Your task to perform on an android device: manage bookmarks in the chrome app Image 0: 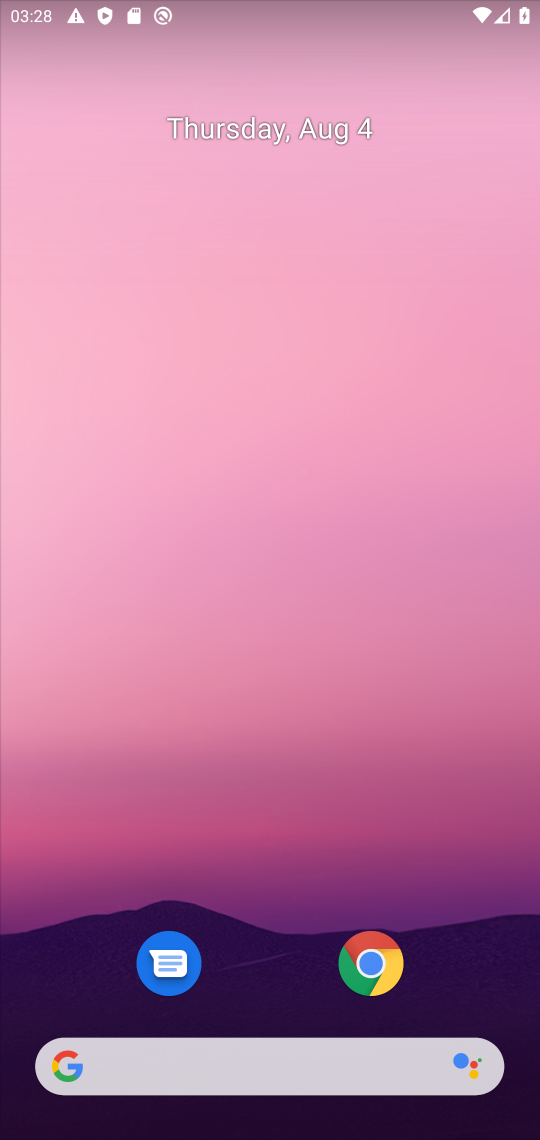
Step 0: click (377, 964)
Your task to perform on an android device: manage bookmarks in the chrome app Image 1: 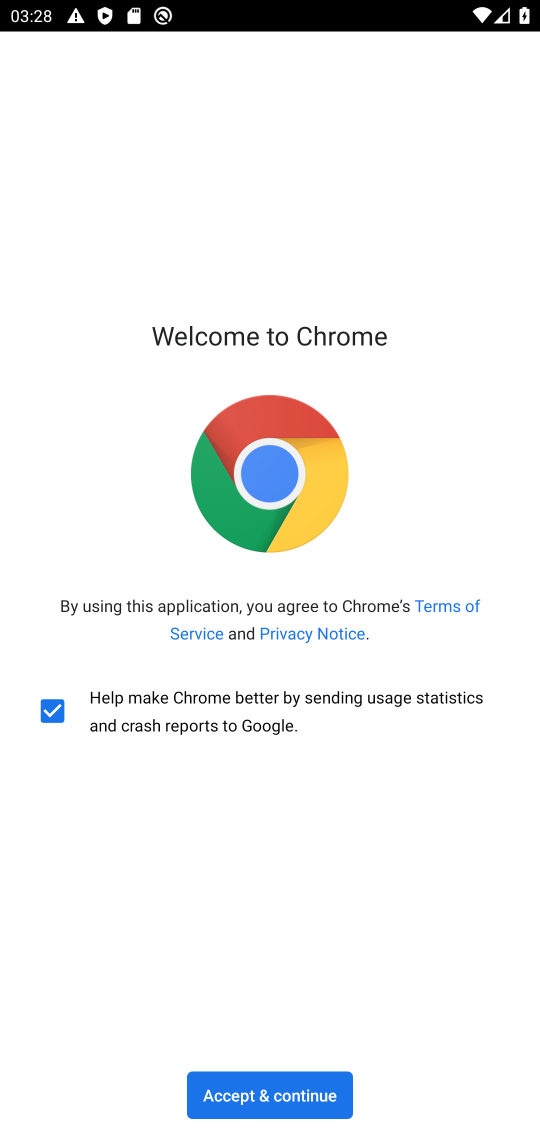
Step 1: click (277, 1098)
Your task to perform on an android device: manage bookmarks in the chrome app Image 2: 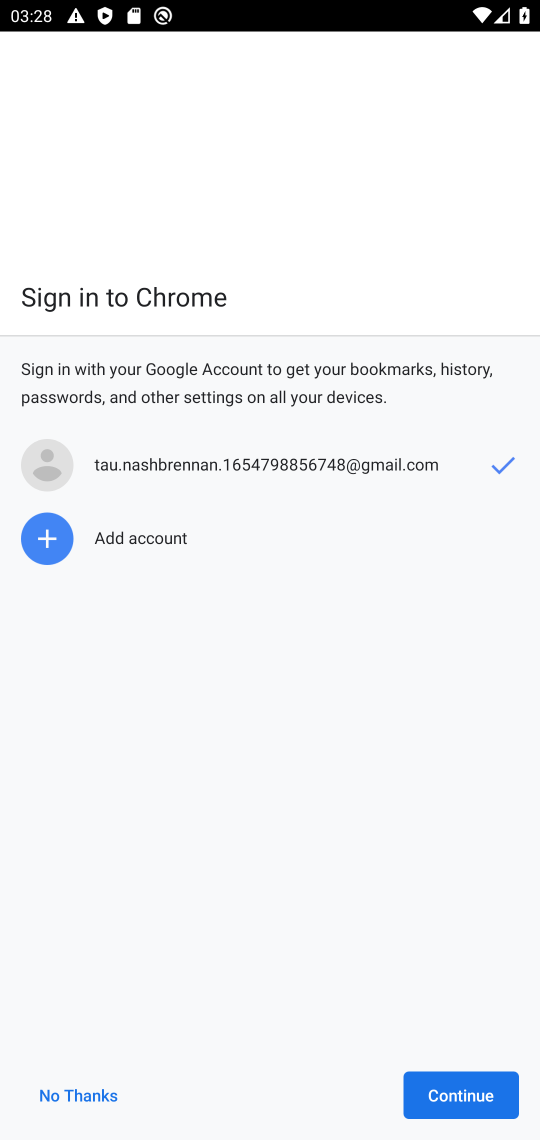
Step 2: click (98, 1100)
Your task to perform on an android device: manage bookmarks in the chrome app Image 3: 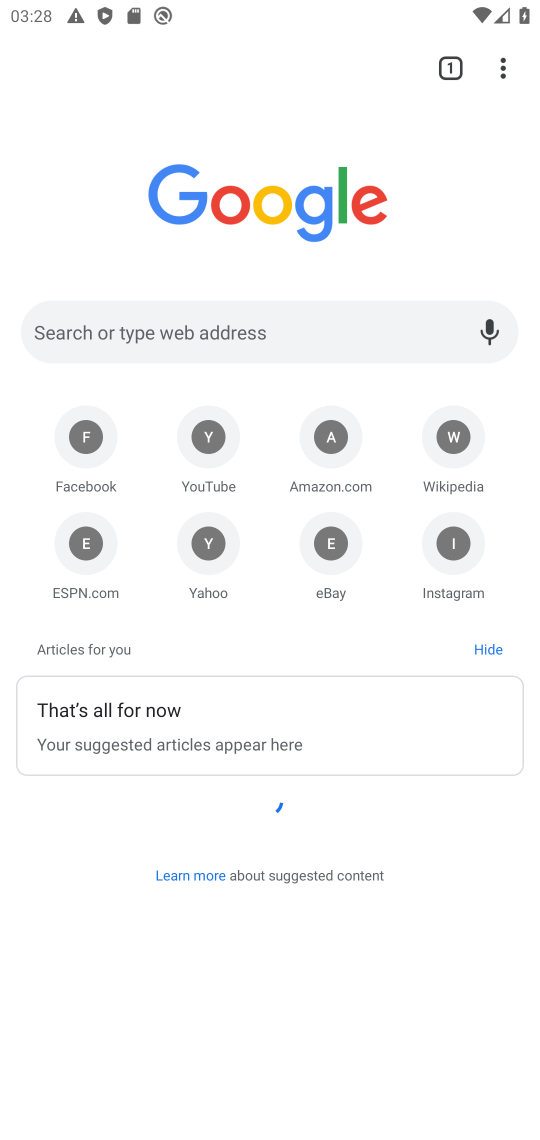
Step 3: drag from (500, 68) to (257, 274)
Your task to perform on an android device: manage bookmarks in the chrome app Image 4: 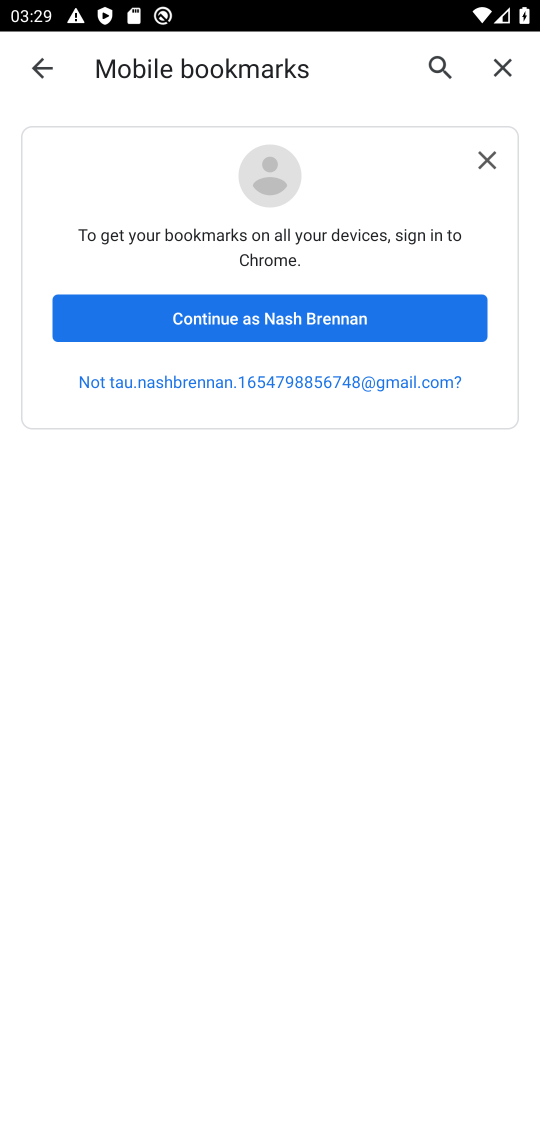
Step 4: click (253, 330)
Your task to perform on an android device: manage bookmarks in the chrome app Image 5: 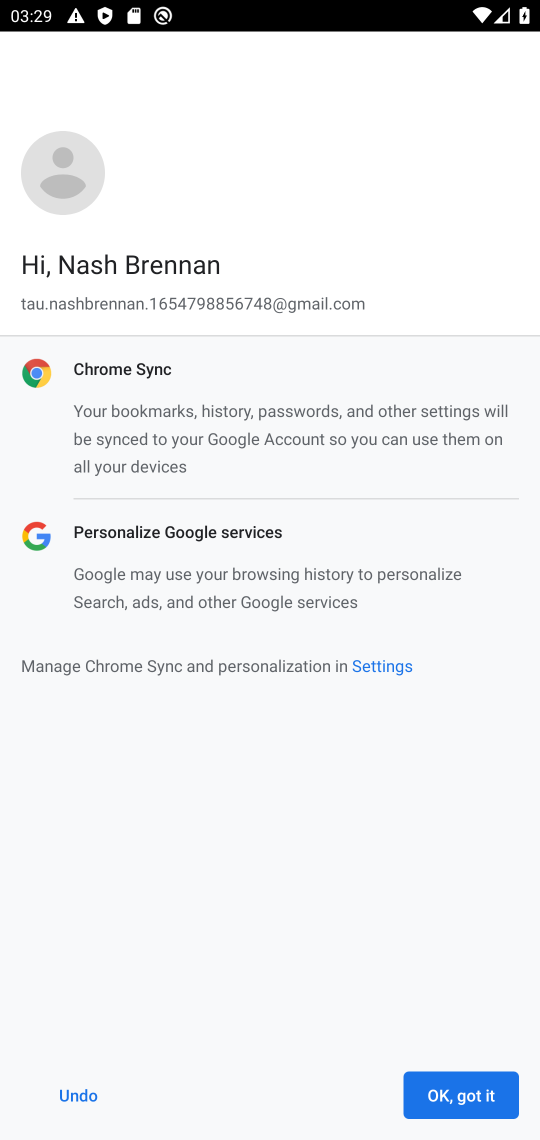
Step 5: click (465, 1113)
Your task to perform on an android device: manage bookmarks in the chrome app Image 6: 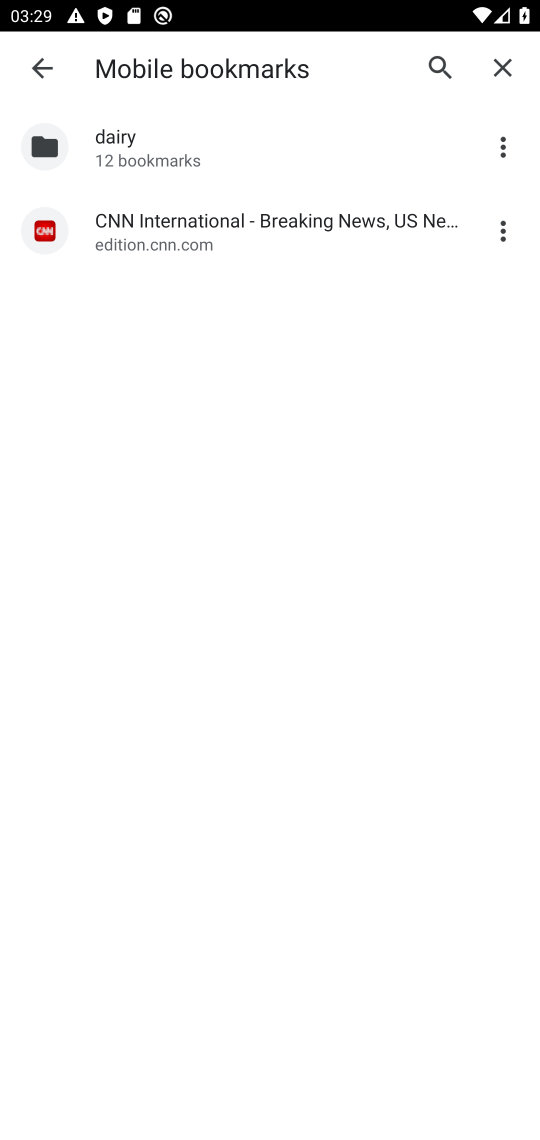
Step 6: click (141, 166)
Your task to perform on an android device: manage bookmarks in the chrome app Image 7: 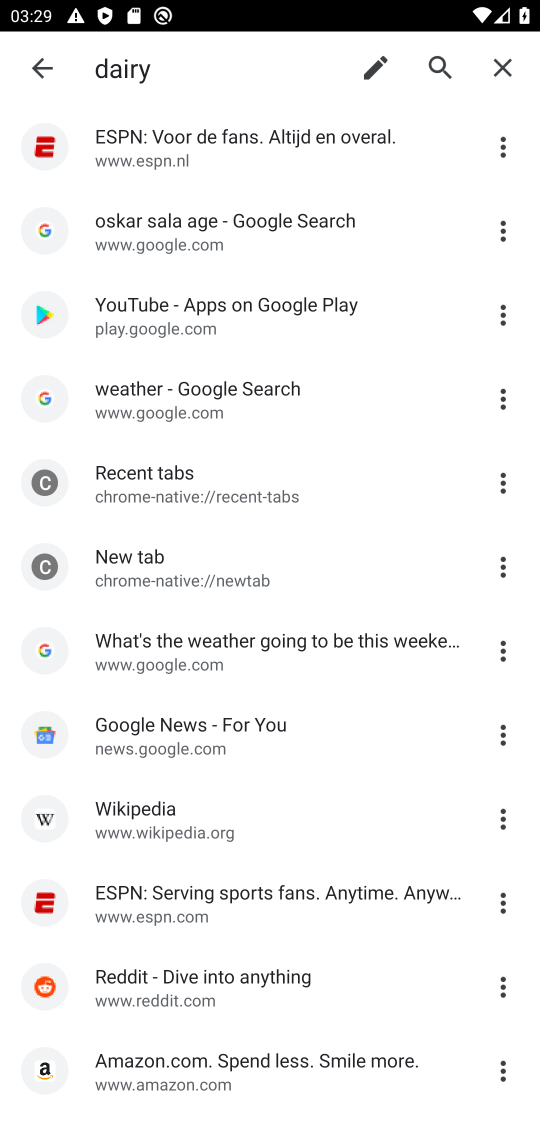
Step 7: click (506, 484)
Your task to perform on an android device: manage bookmarks in the chrome app Image 8: 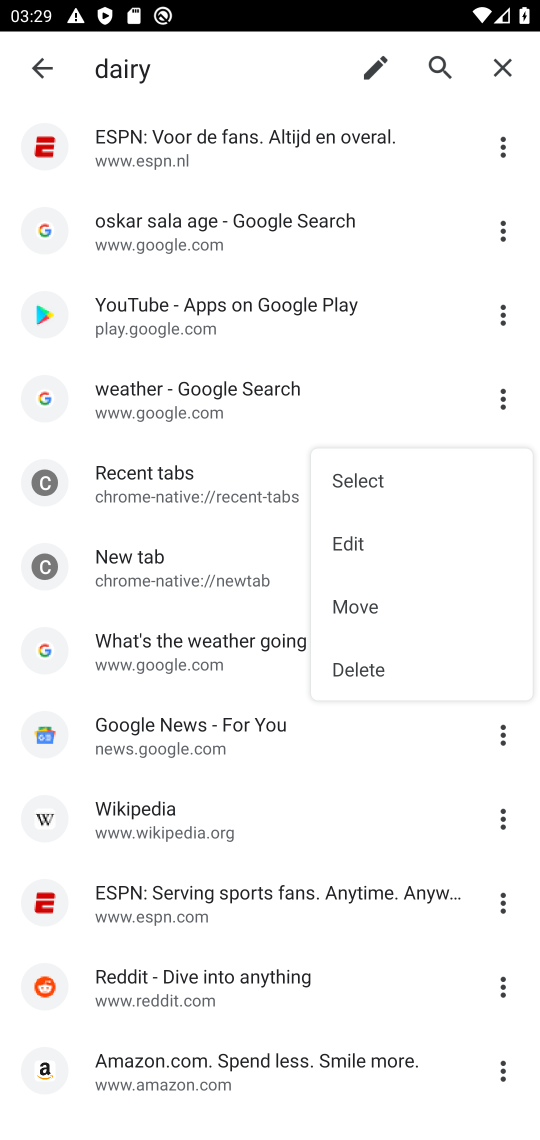
Step 8: click (336, 670)
Your task to perform on an android device: manage bookmarks in the chrome app Image 9: 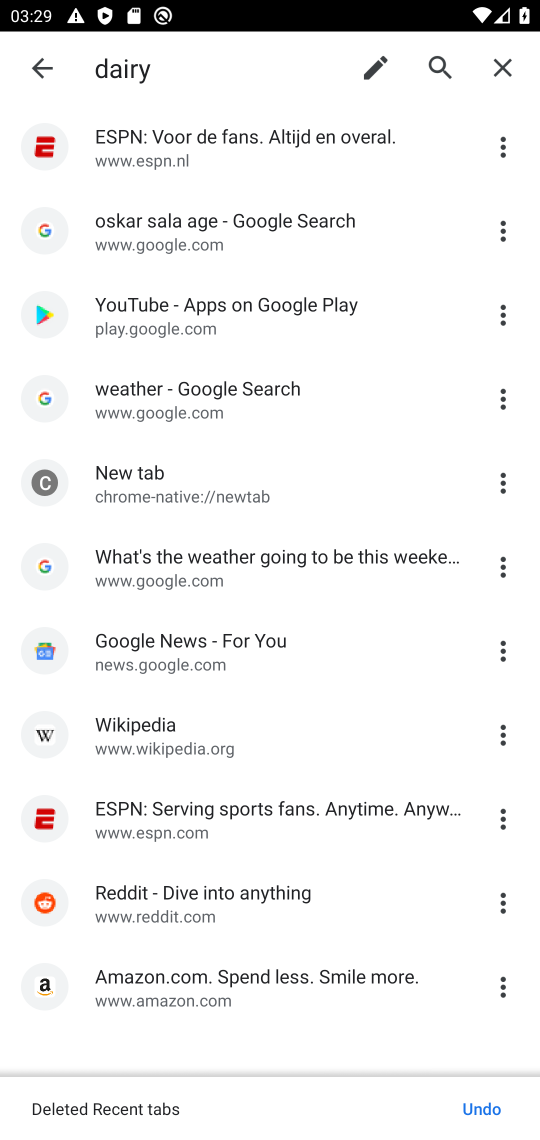
Step 9: task complete